Your task to perform on an android device: turn off picture-in-picture Image 0: 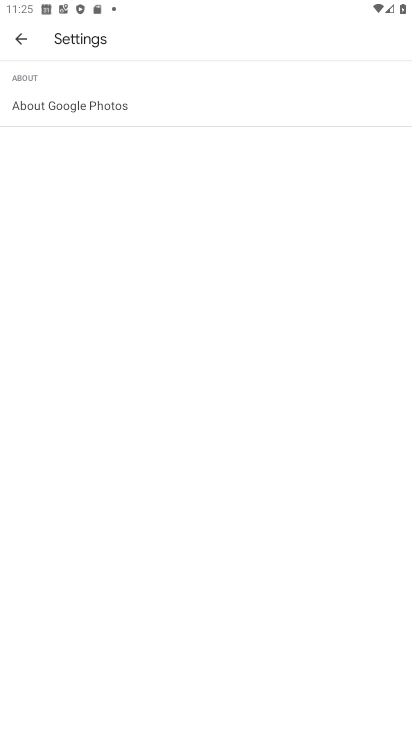
Step 0: press home button
Your task to perform on an android device: turn off picture-in-picture Image 1: 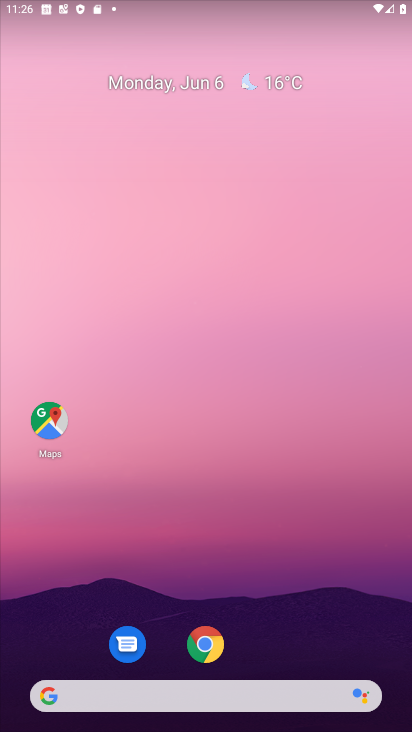
Step 1: click (213, 639)
Your task to perform on an android device: turn off picture-in-picture Image 2: 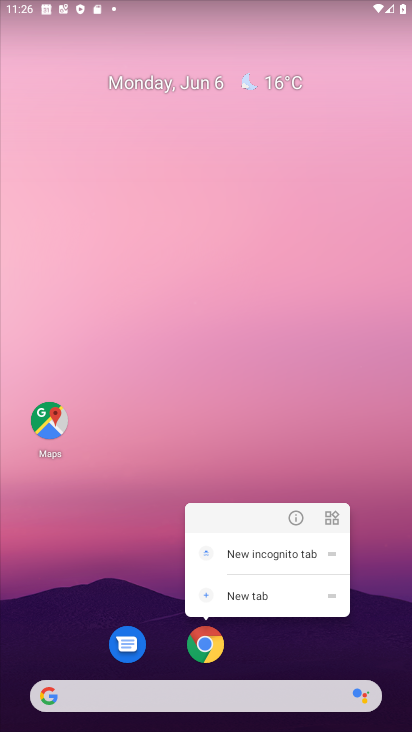
Step 2: click (295, 526)
Your task to perform on an android device: turn off picture-in-picture Image 3: 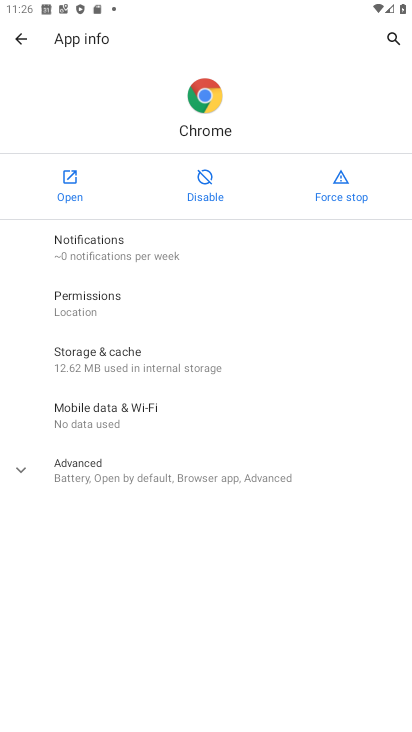
Step 3: click (177, 483)
Your task to perform on an android device: turn off picture-in-picture Image 4: 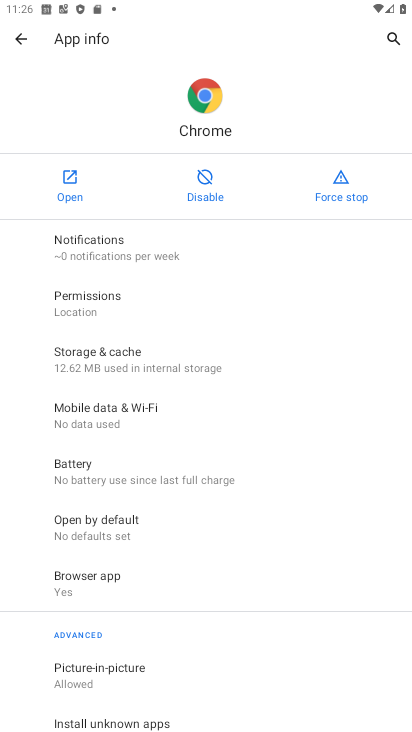
Step 4: click (202, 677)
Your task to perform on an android device: turn off picture-in-picture Image 5: 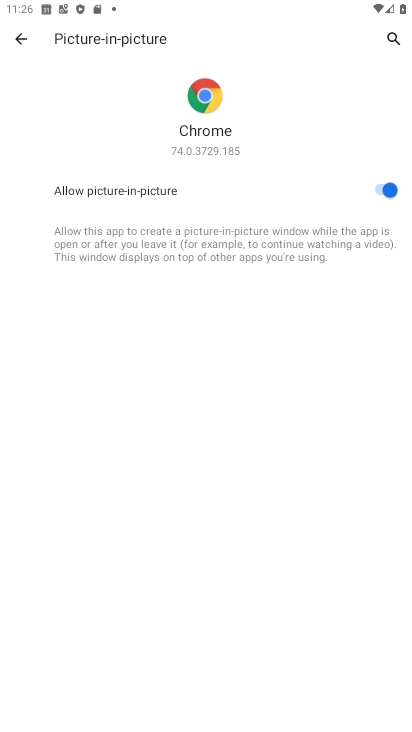
Step 5: click (379, 195)
Your task to perform on an android device: turn off picture-in-picture Image 6: 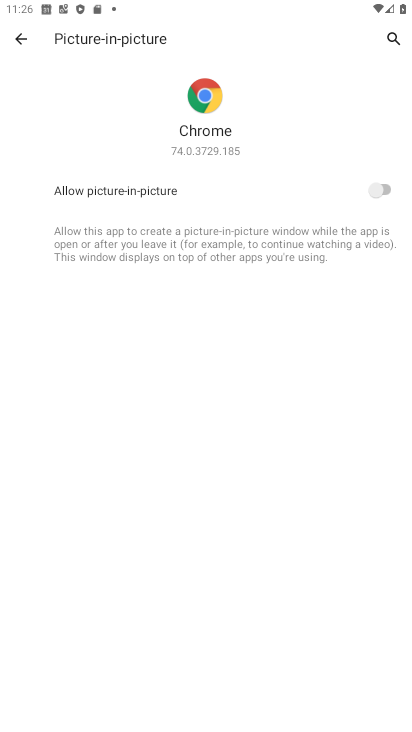
Step 6: task complete